Your task to perform on an android device: Open CNN.com Image 0: 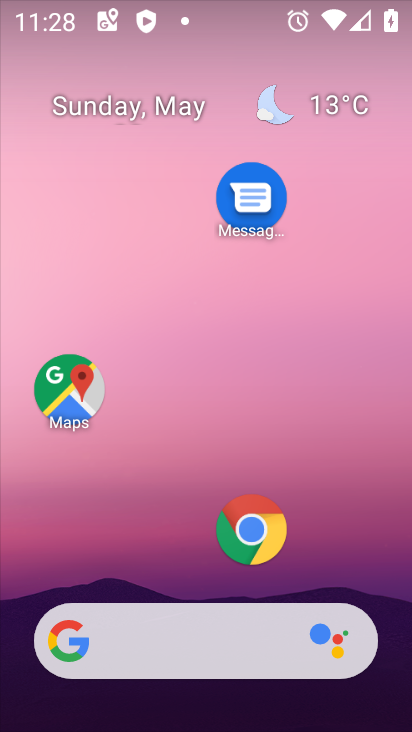
Step 0: click (274, 533)
Your task to perform on an android device: Open CNN.com Image 1: 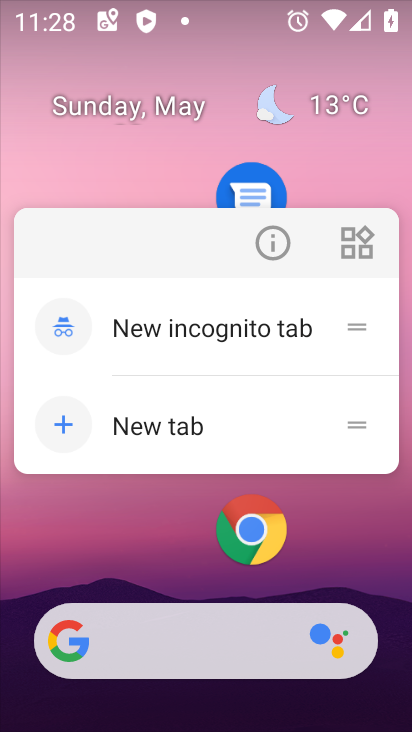
Step 1: click (271, 538)
Your task to perform on an android device: Open CNN.com Image 2: 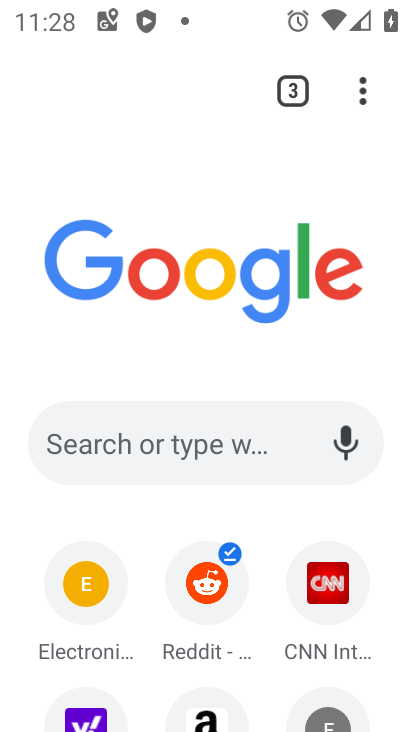
Step 2: click (320, 610)
Your task to perform on an android device: Open CNN.com Image 3: 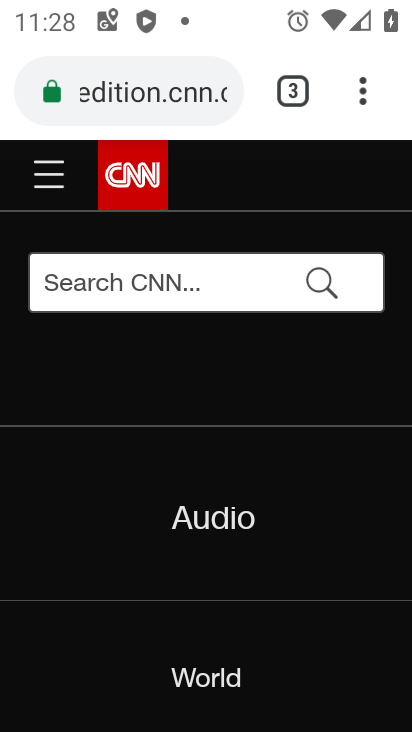
Step 3: task complete